Your task to perform on an android device: set the timer Image 0: 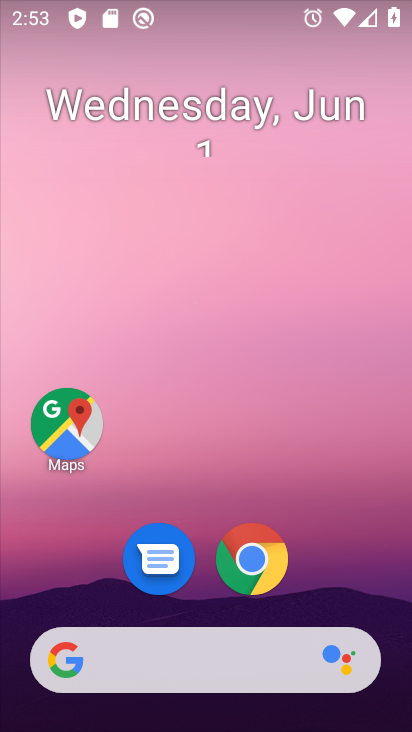
Step 0: drag from (342, 580) to (348, 14)
Your task to perform on an android device: set the timer Image 1: 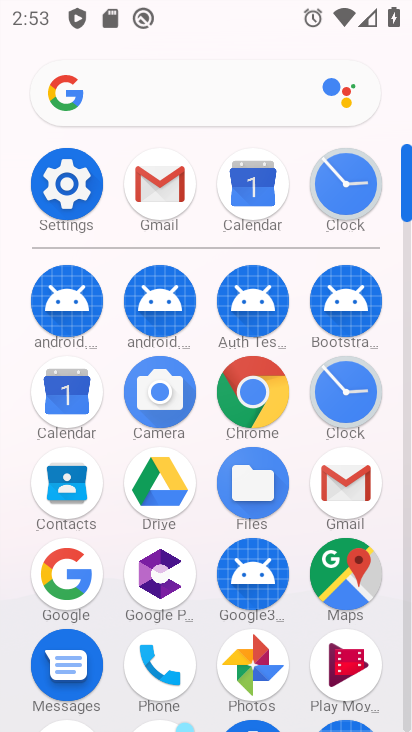
Step 1: click (342, 392)
Your task to perform on an android device: set the timer Image 2: 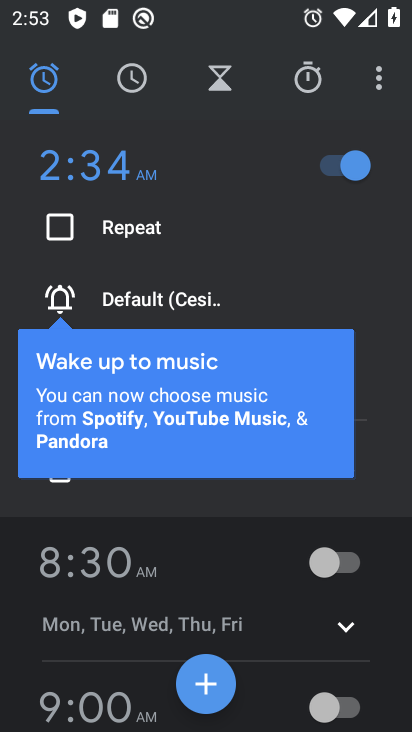
Step 2: click (235, 90)
Your task to perform on an android device: set the timer Image 3: 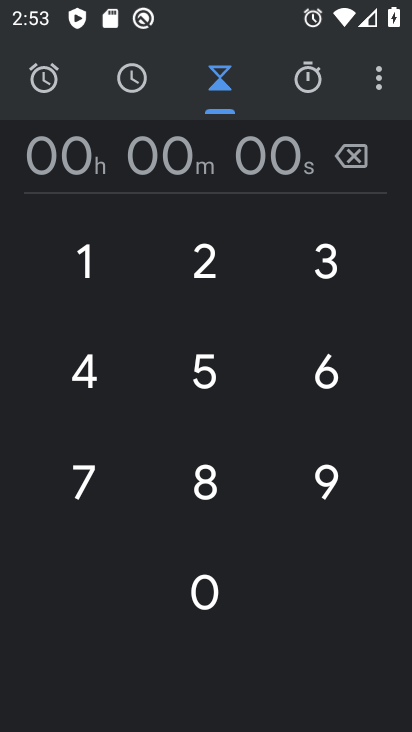
Step 3: click (198, 471)
Your task to perform on an android device: set the timer Image 4: 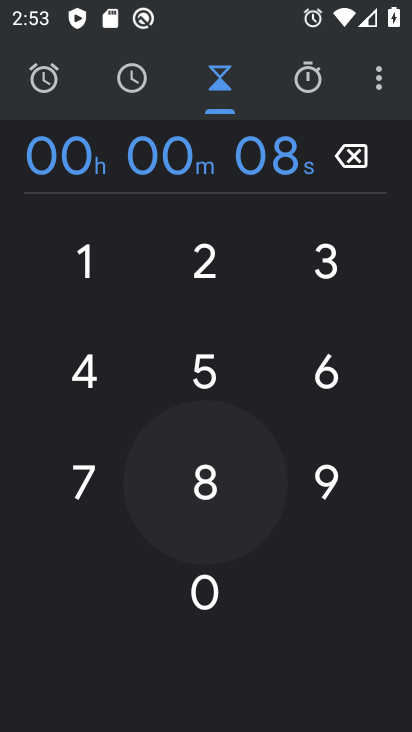
Step 4: click (198, 471)
Your task to perform on an android device: set the timer Image 5: 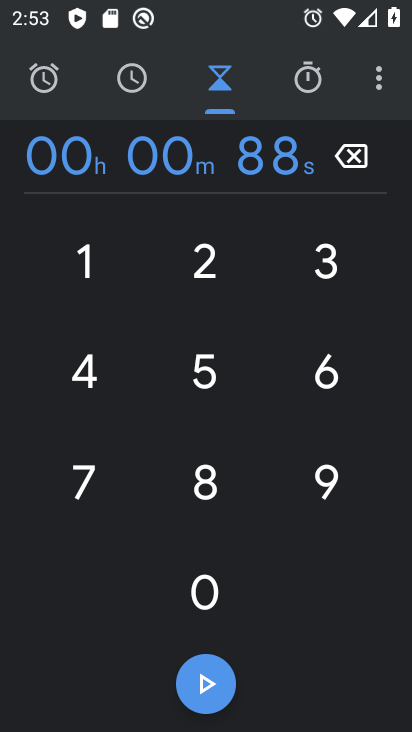
Step 5: click (198, 471)
Your task to perform on an android device: set the timer Image 6: 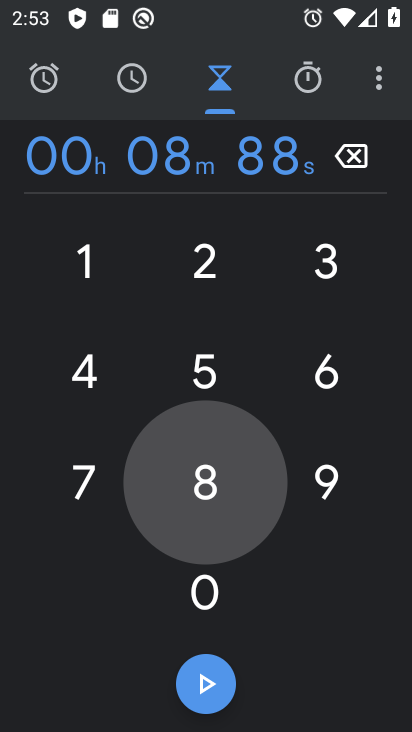
Step 6: click (198, 471)
Your task to perform on an android device: set the timer Image 7: 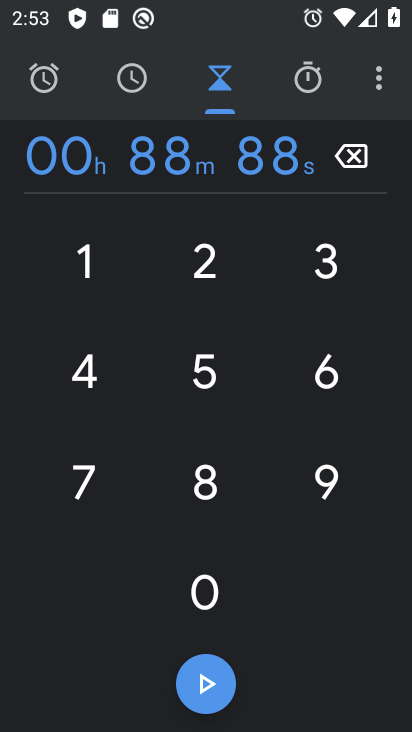
Step 7: click (205, 500)
Your task to perform on an android device: set the timer Image 8: 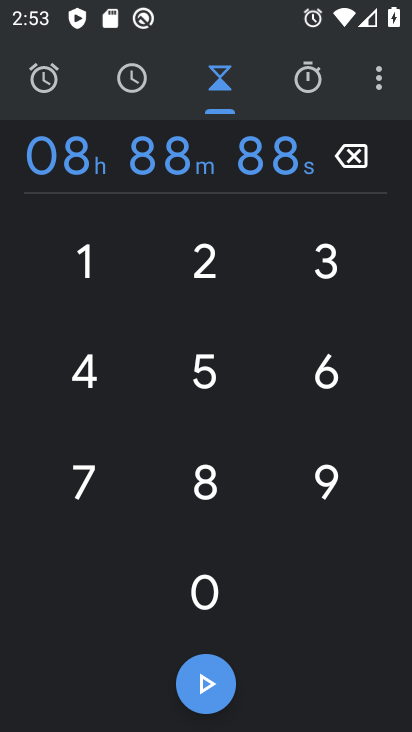
Step 8: click (199, 680)
Your task to perform on an android device: set the timer Image 9: 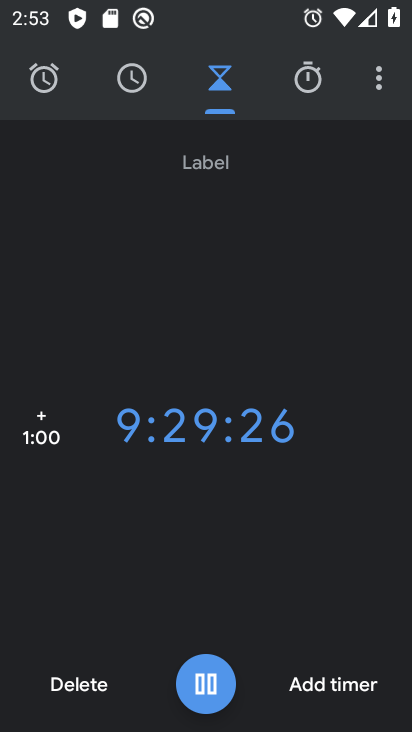
Step 9: task complete